Your task to perform on an android device: uninstall "Paramount+ | Peak Streaming" Image 0: 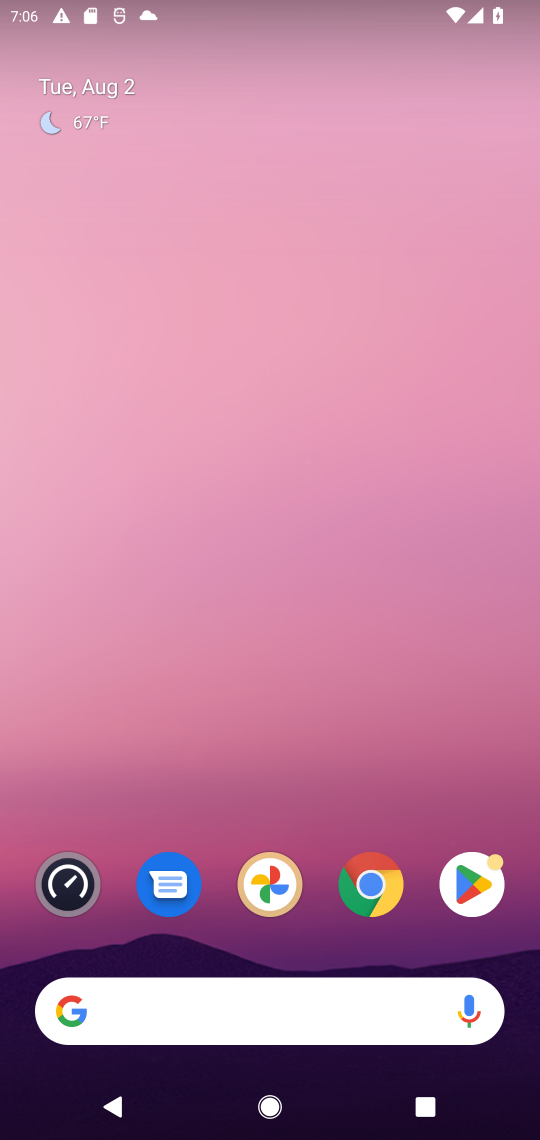
Step 0: press home button
Your task to perform on an android device: uninstall "Paramount+ | Peak Streaming" Image 1: 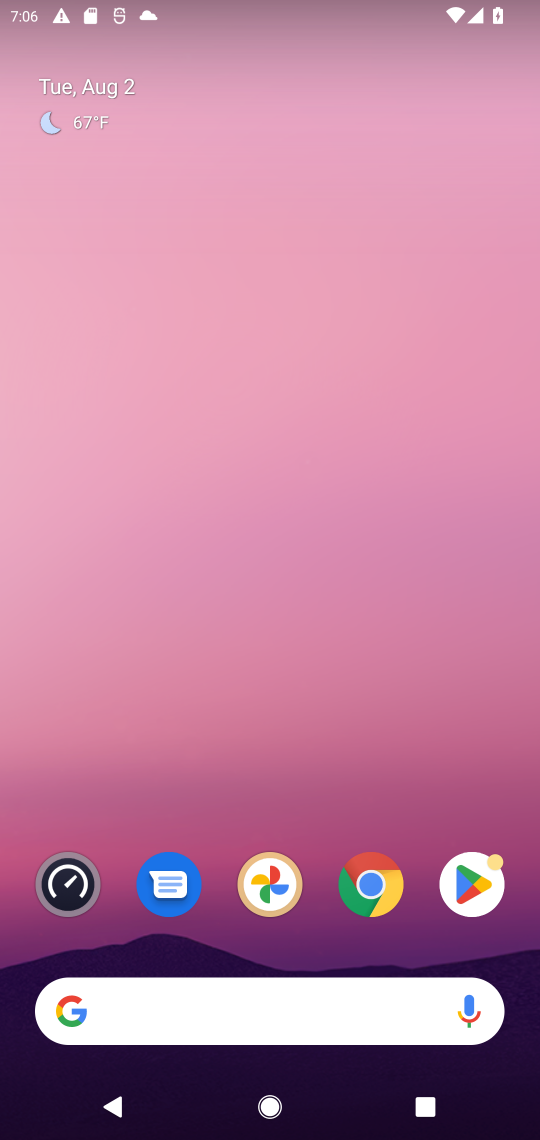
Step 1: click (474, 890)
Your task to perform on an android device: uninstall "Paramount+ | Peak Streaming" Image 2: 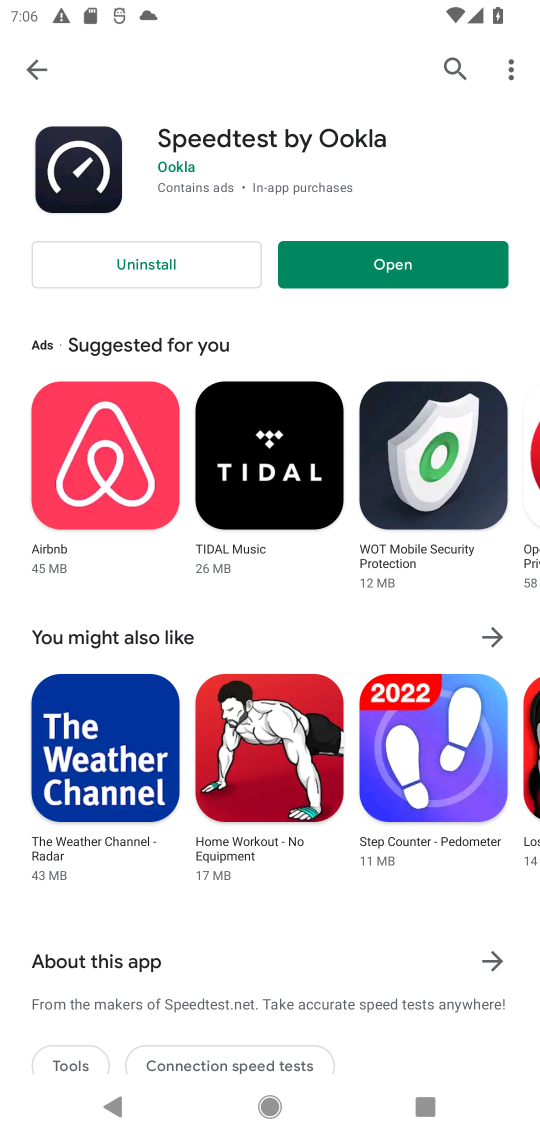
Step 2: click (448, 64)
Your task to perform on an android device: uninstall "Paramount+ | Peak Streaming" Image 3: 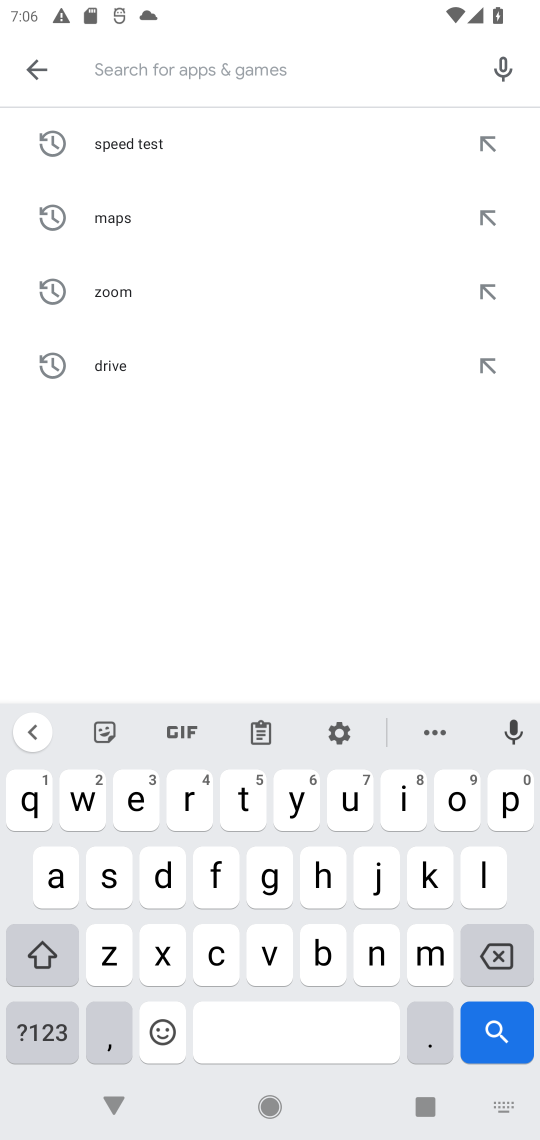
Step 3: click (224, 82)
Your task to perform on an android device: uninstall "Paramount+ | Peak Streaming" Image 4: 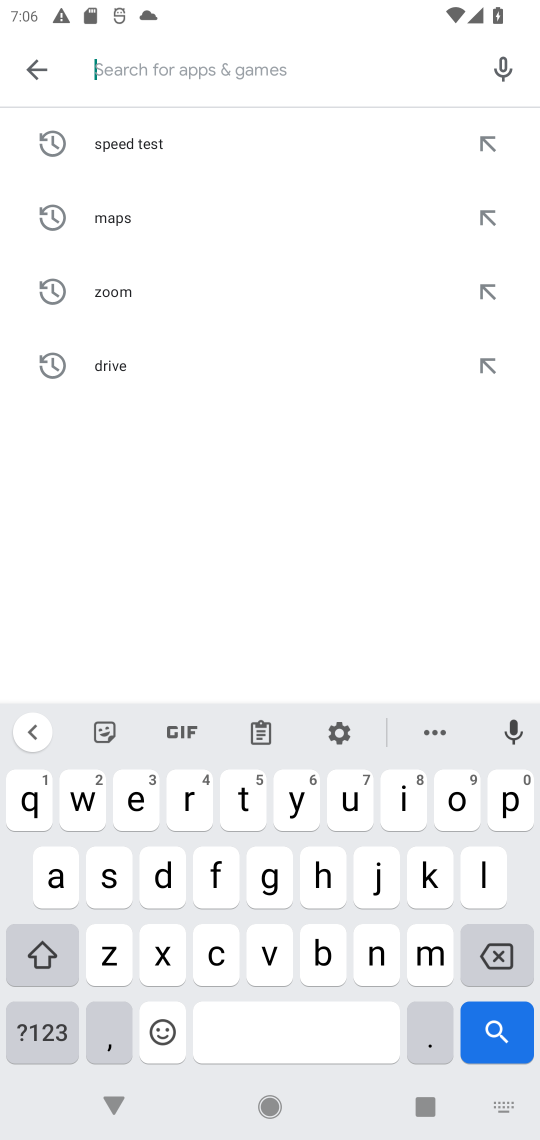
Step 4: click (503, 791)
Your task to perform on an android device: uninstall "Paramount+ | Peak Streaming" Image 5: 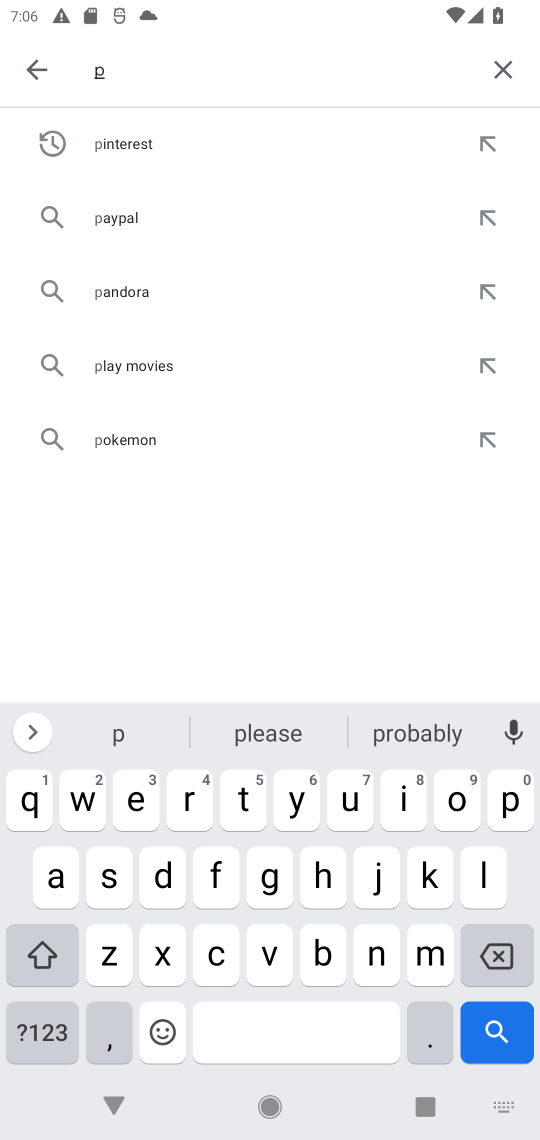
Step 5: click (55, 879)
Your task to perform on an android device: uninstall "Paramount+ | Peak Streaming" Image 6: 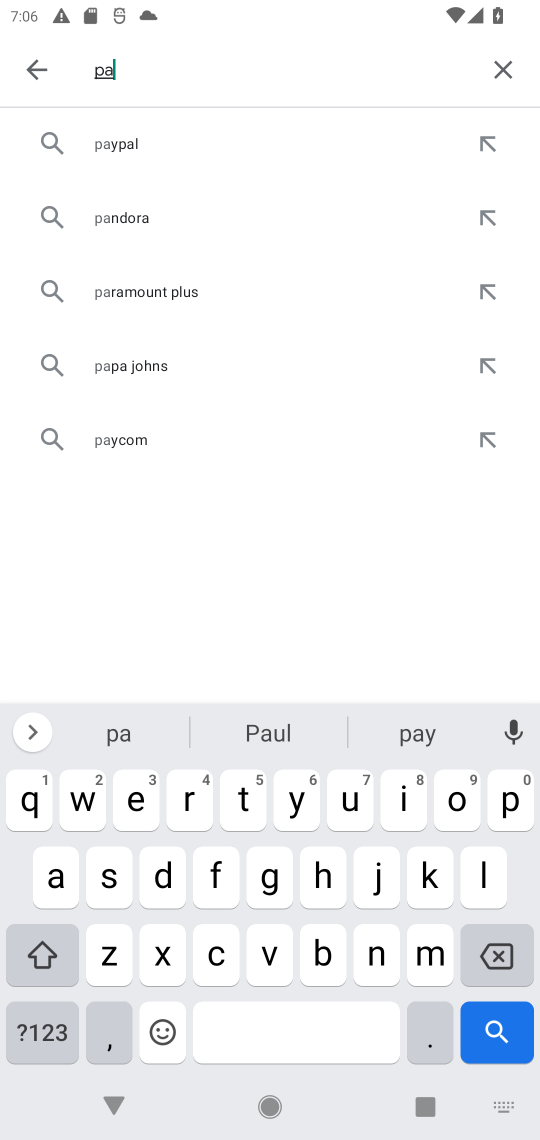
Step 6: click (178, 807)
Your task to perform on an android device: uninstall "Paramount+ | Peak Streaming" Image 7: 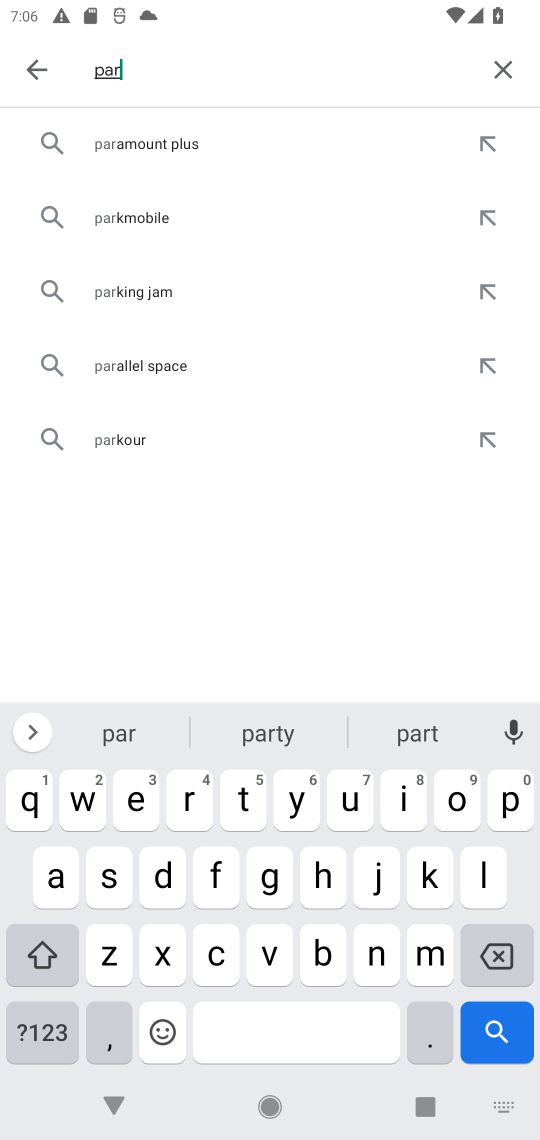
Step 7: click (156, 152)
Your task to perform on an android device: uninstall "Paramount+ | Peak Streaming" Image 8: 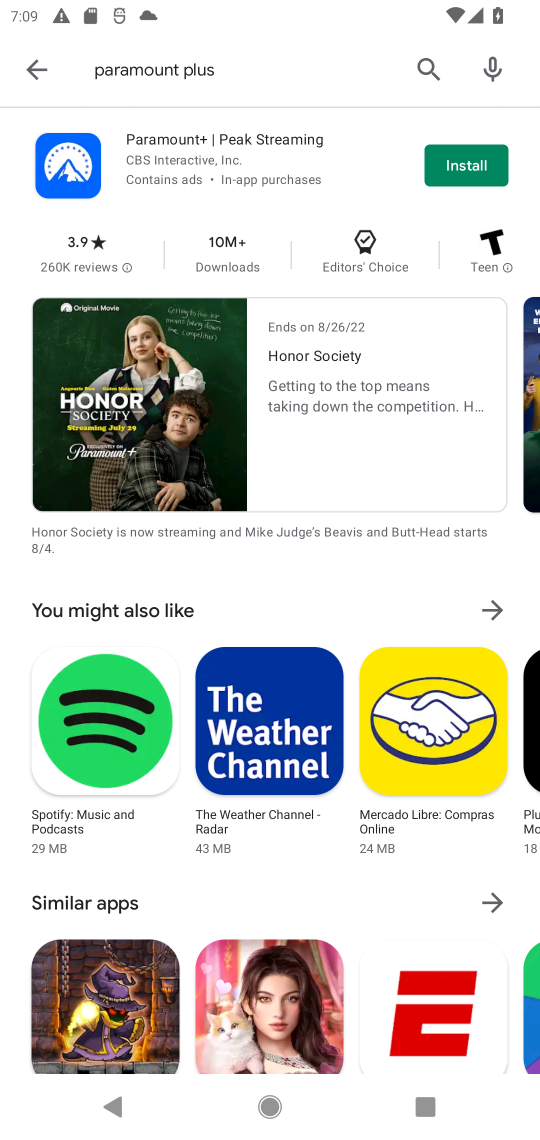
Step 8: task complete